Your task to perform on an android device: empty trash in google photos Image 0: 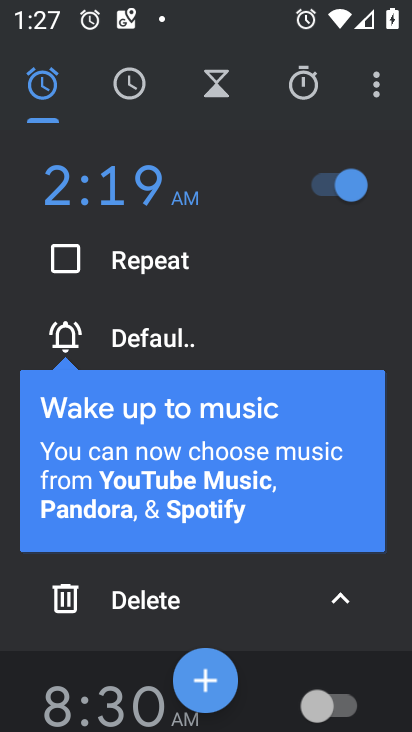
Step 0: press back button
Your task to perform on an android device: empty trash in google photos Image 1: 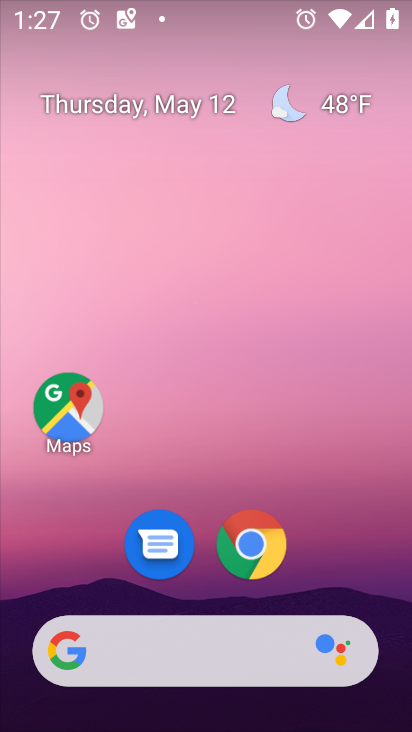
Step 1: drag from (364, 541) to (280, 44)
Your task to perform on an android device: empty trash in google photos Image 2: 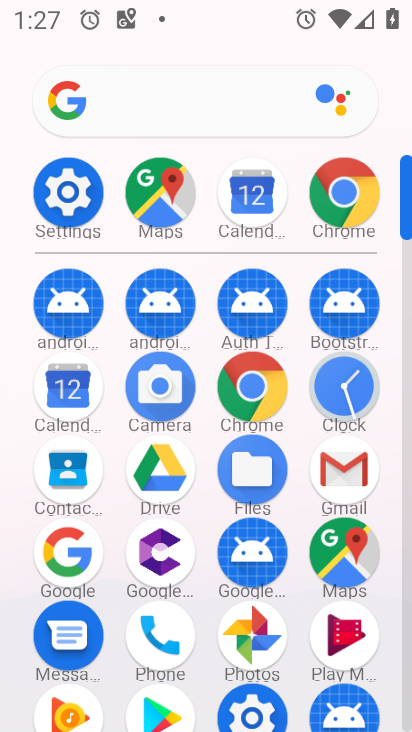
Step 2: drag from (14, 596) to (40, 293)
Your task to perform on an android device: empty trash in google photos Image 3: 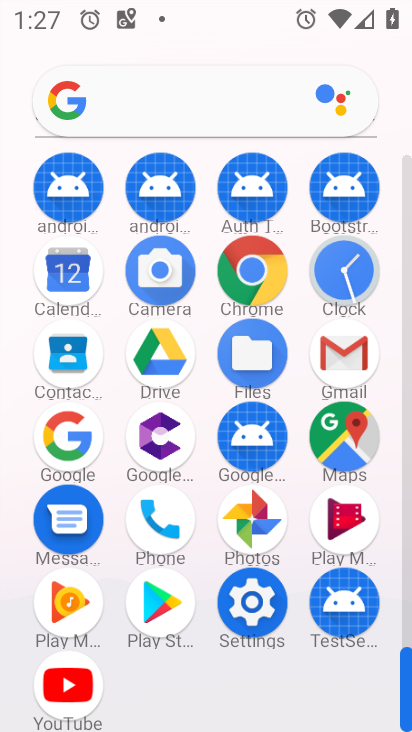
Step 3: click (250, 516)
Your task to perform on an android device: empty trash in google photos Image 4: 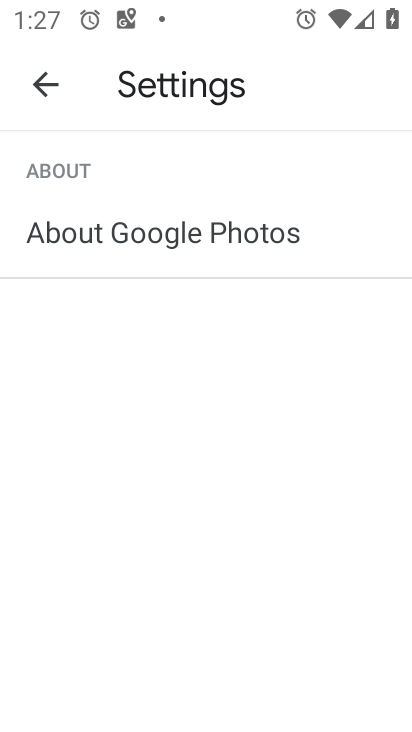
Step 4: click (47, 91)
Your task to perform on an android device: empty trash in google photos Image 5: 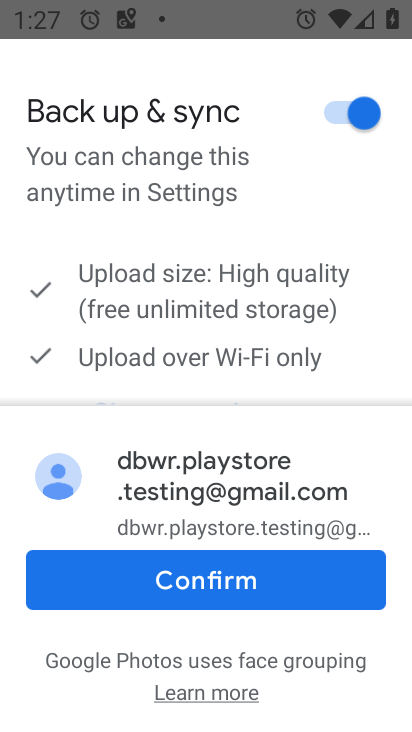
Step 5: click (250, 580)
Your task to perform on an android device: empty trash in google photos Image 6: 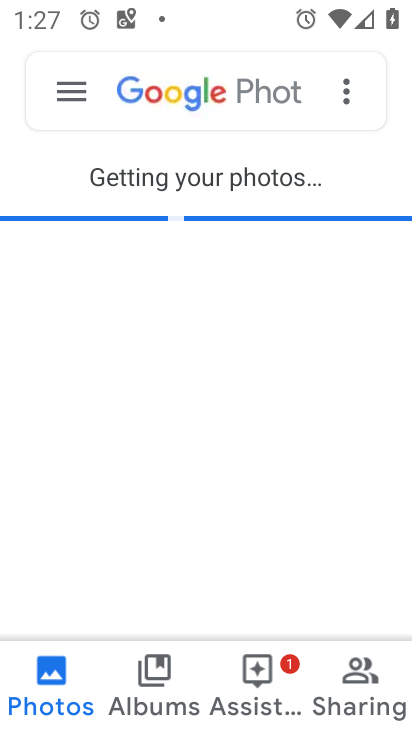
Step 6: click (69, 85)
Your task to perform on an android device: empty trash in google photos Image 7: 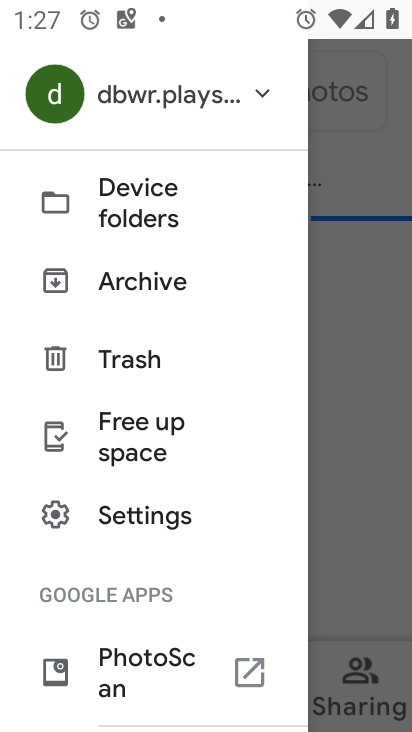
Step 7: click (100, 360)
Your task to perform on an android device: empty trash in google photos Image 8: 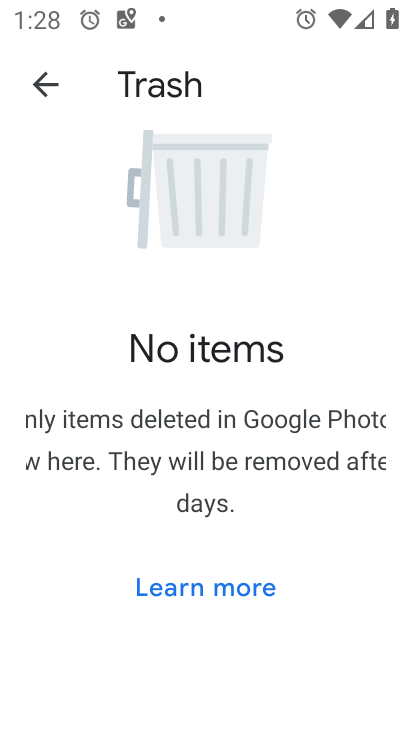
Step 8: task complete